Your task to perform on an android device: move a message to another label in the gmail app Image 0: 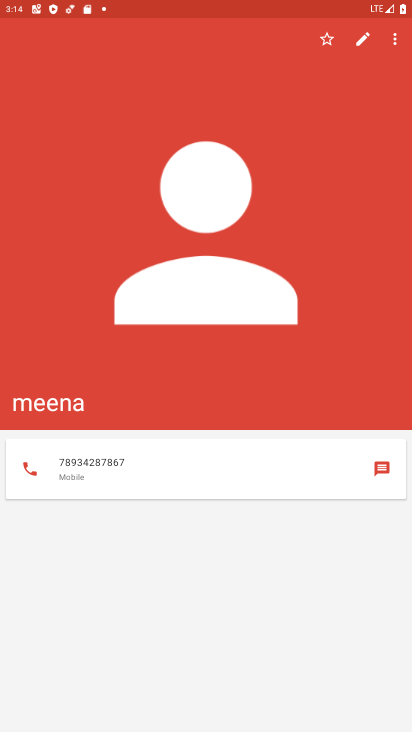
Step 0: press home button
Your task to perform on an android device: move a message to another label in the gmail app Image 1: 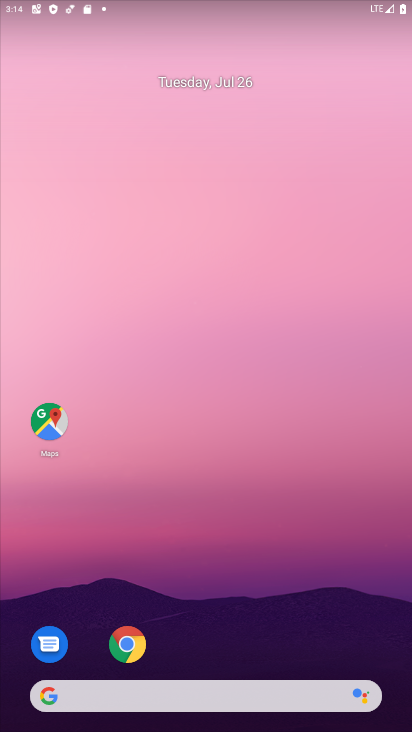
Step 1: drag from (208, 695) to (234, 349)
Your task to perform on an android device: move a message to another label in the gmail app Image 2: 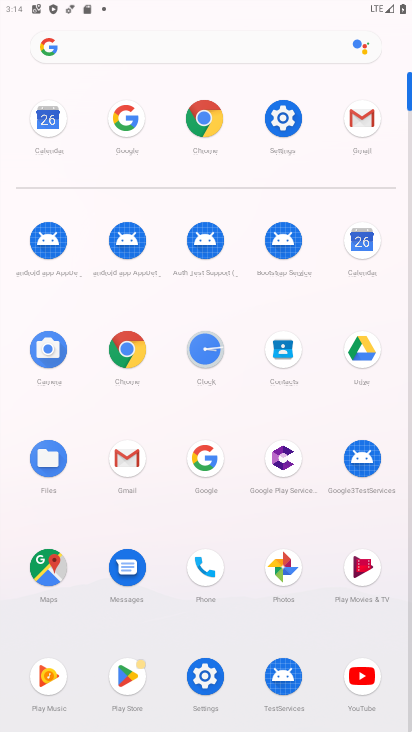
Step 2: click (353, 124)
Your task to perform on an android device: move a message to another label in the gmail app Image 3: 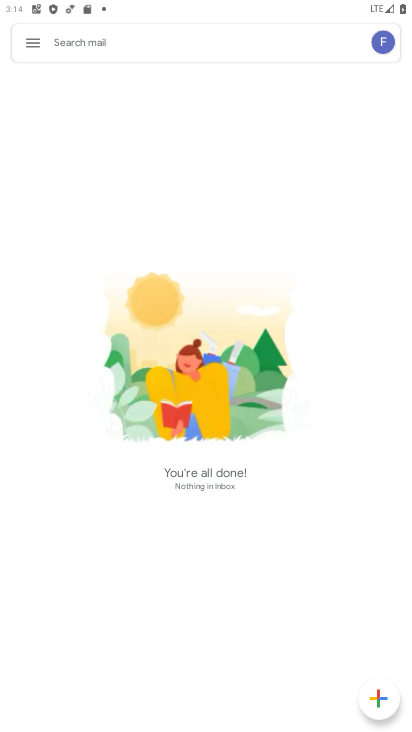
Step 3: task complete